Your task to perform on an android device: turn off notifications in google photos Image 0: 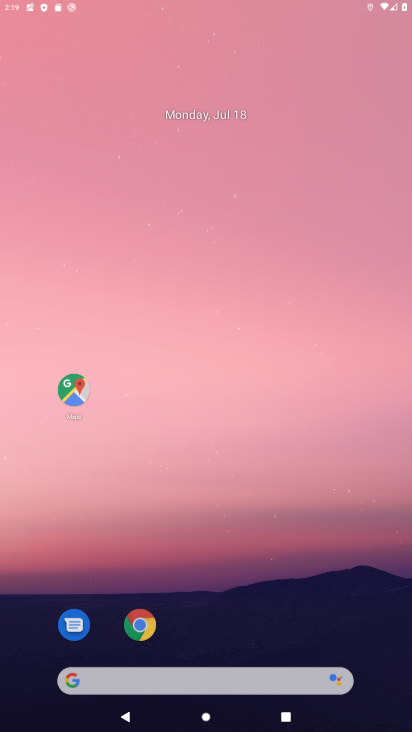
Step 0: press home button
Your task to perform on an android device: turn off notifications in google photos Image 1: 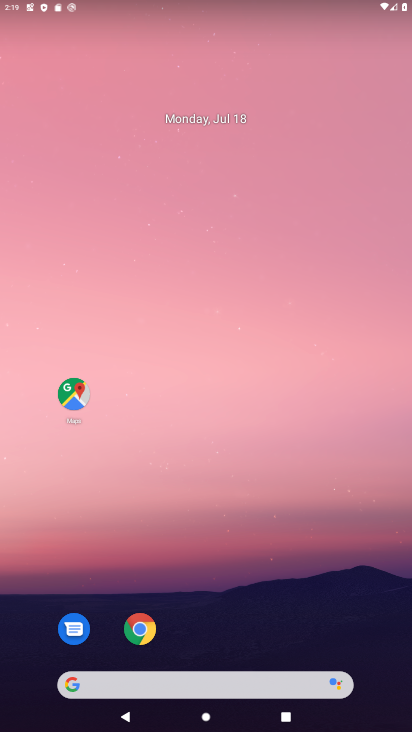
Step 1: drag from (197, 652) to (200, 66)
Your task to perform on an android device: turn off notifications in google photos Image 2: 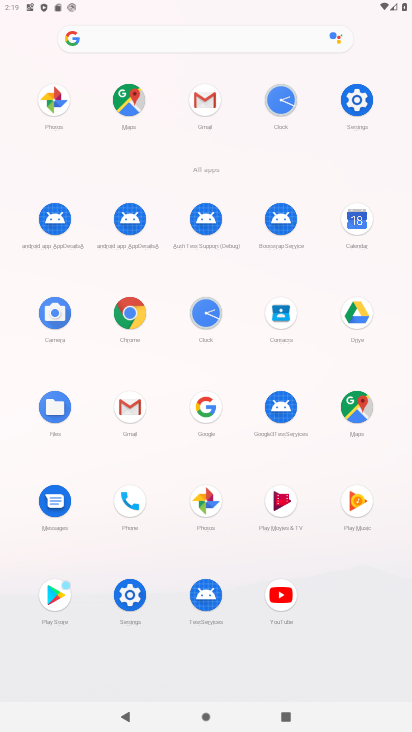
Step 2: click (192, 494)
Your task to perform on an android device: turn off notifications in google photos Image 3: 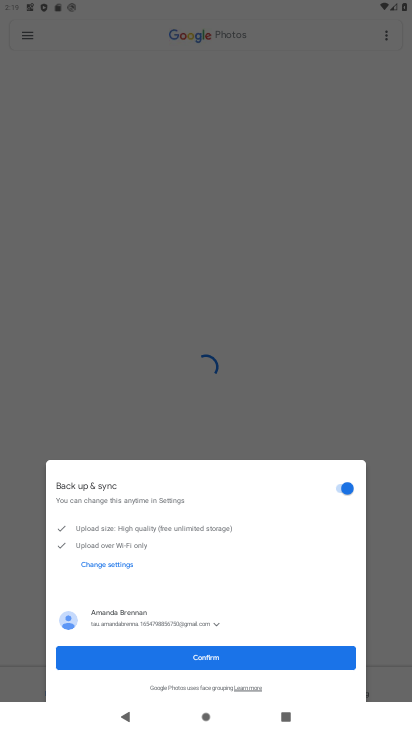
Step 3: click (233, 650)
Your task to perform on an android device: turn off notifications in google photos Image 4: 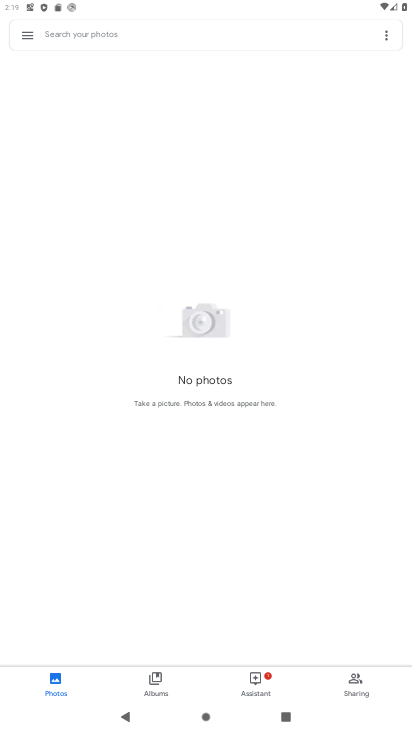
Step 4: click (21, 32)
Your task to perform on an android device: turn off notifications in google photos Image 5: 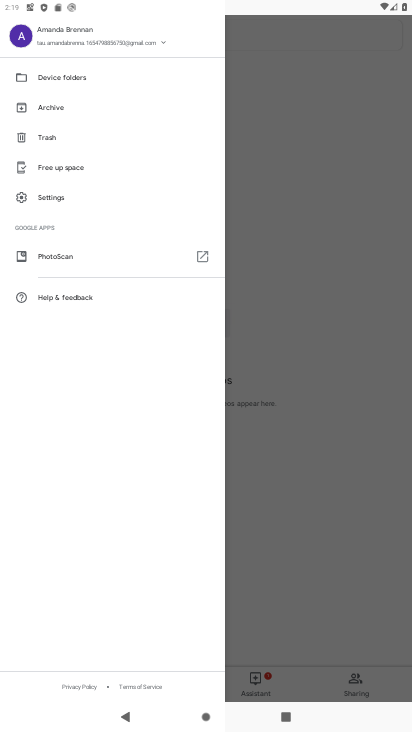
Step 5: click (50, 205)
Your task to perform on an android device: turn off notifications in google photos Image 6: 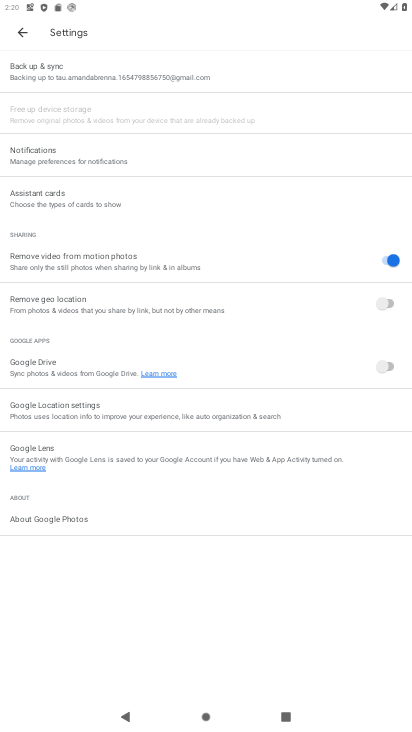
Step 6: click (27, 158)
Your task to perform on an android device: turn off notifications in google photos Image 7: 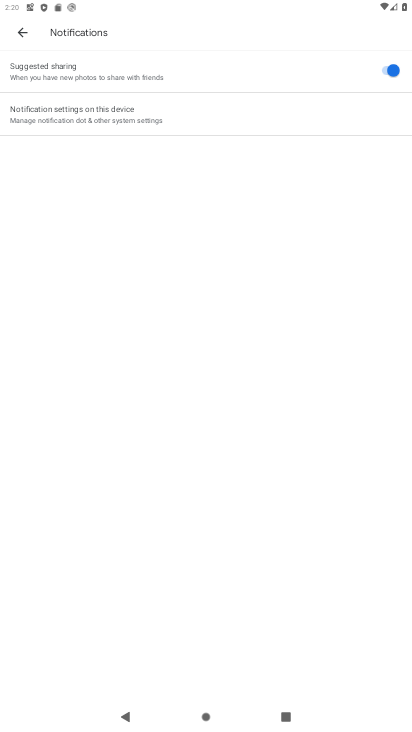
Step 7: click (298, 124)
Your task to perform on an android device: turn off notifications in google photos Image 8: 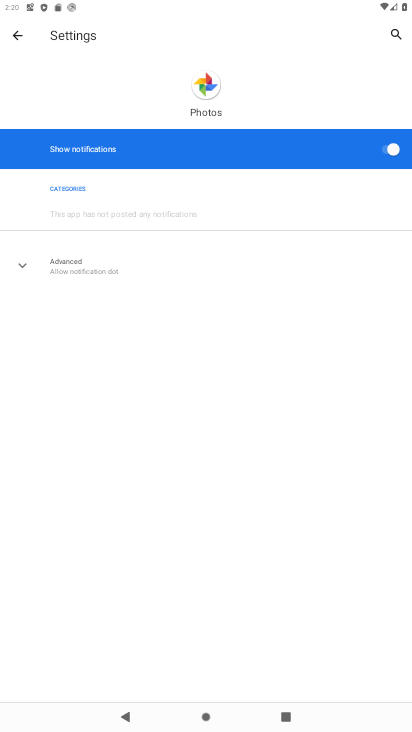
Step 8: click (383, 143)
Your task to perform on an android device: turn off notifications in google photos Image 9: 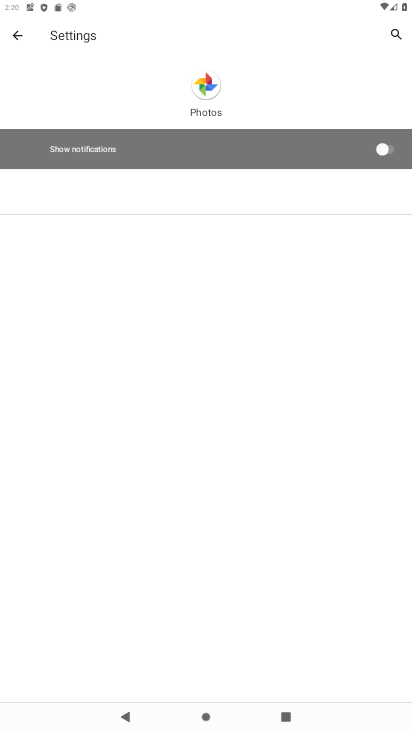
Step 9: task complete